Your task to perform on an android device: toggle notifications settings in the gmail app Image 0: 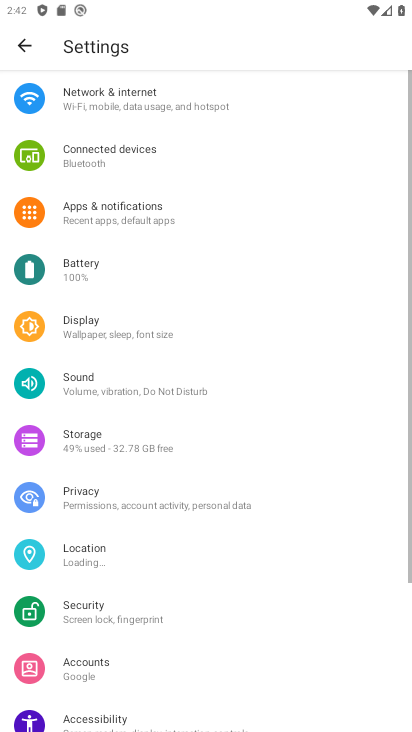
Step 0: press home button
Your task to perform on an android device: toggle notifications settings in the gmail app Image 1: 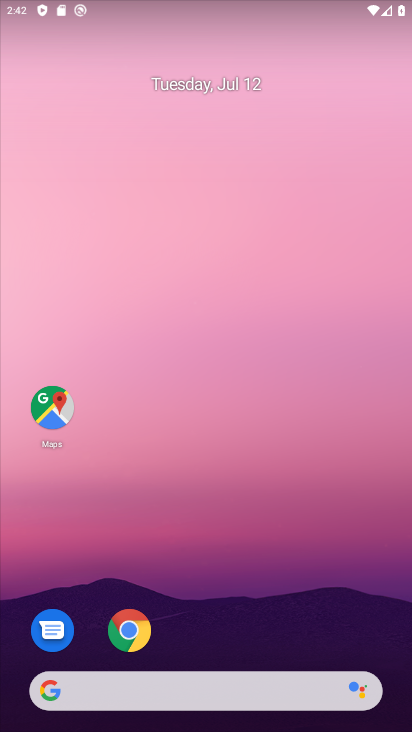
Step 1: drag from (257, 618) to (243, 158)
Your task to perform on an android device: toggle notifications settings in the gmail app Image 2: 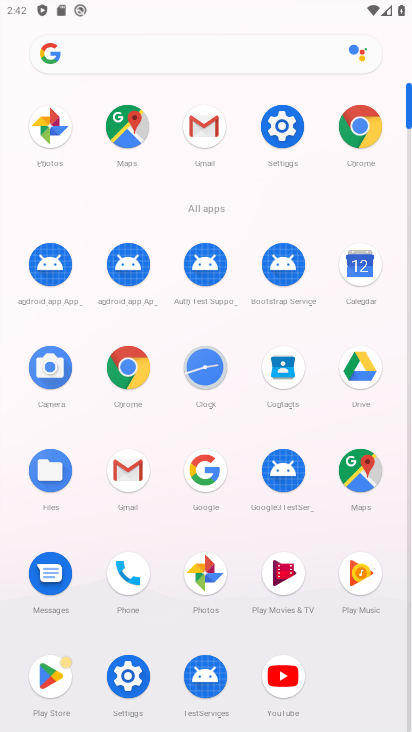
Step 2: click (134, 472)
Your task to perform on an android device: toggle notifications settings in the gmail app Image 3: 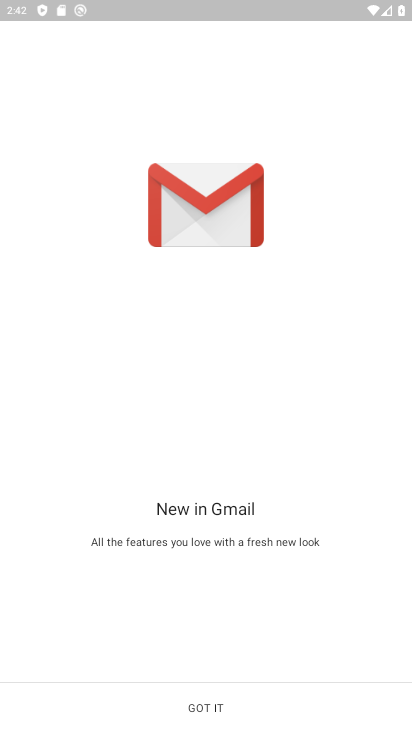
Step 3: click (208, 700)
Your task to perform on an android device: toggle notifications settings in the gmail app Image 4: 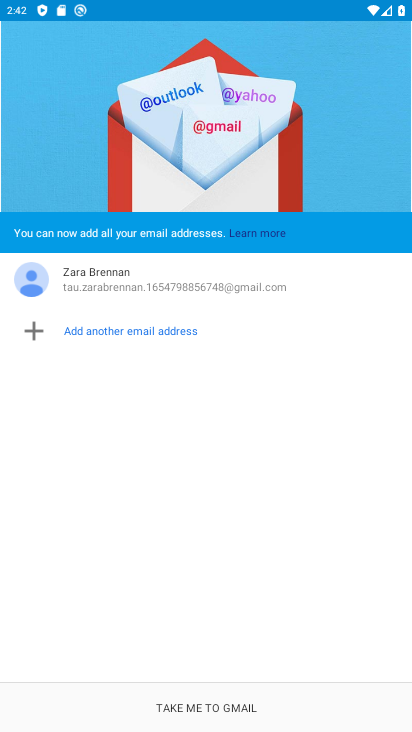
Step 4: click (206, 704)
Your task to perform on an android device: toggle notifications settings in the gmail app Image 5: 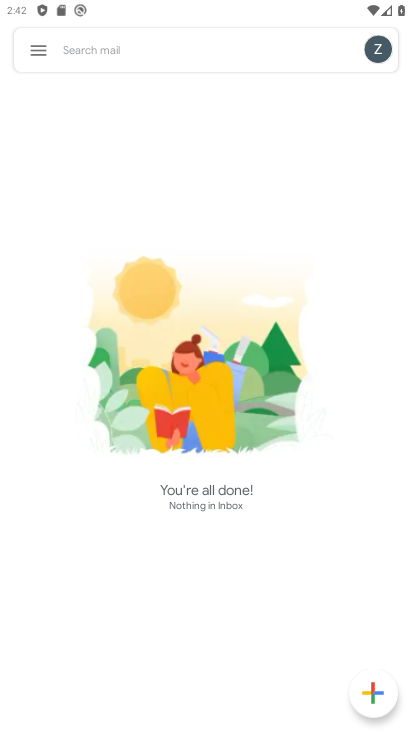
Step 5: click (45, 54)
Your task to perform on an android device: toggle notifications settings in the gmail app Image 6: 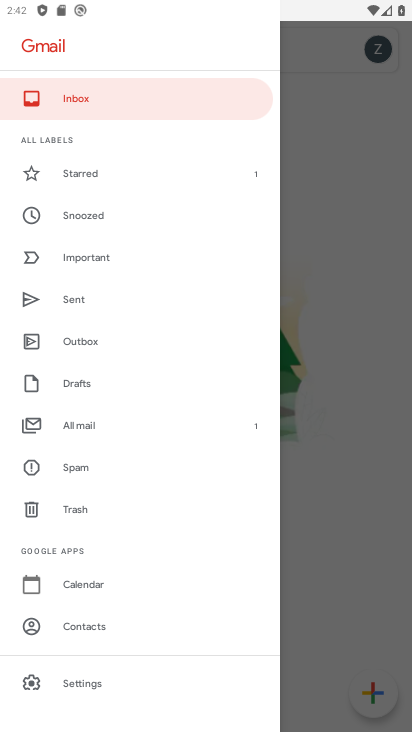
Step 6: click (92, 672)
Your task to perform on an android device: toggle notifications settings in the gmail app Image 7: 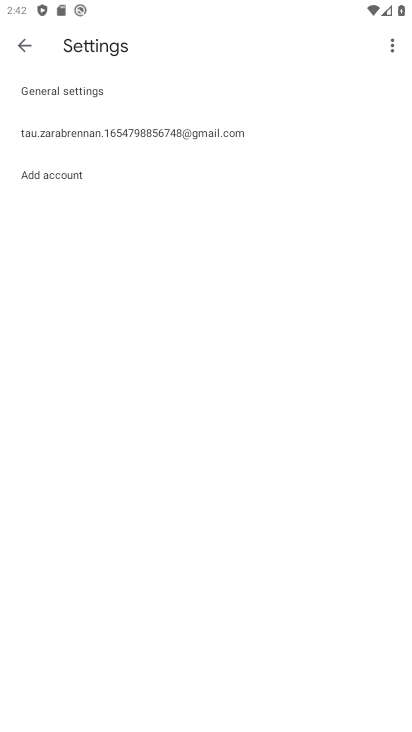
Step 7: click (144, 136)
Your task to perform on an android device: toggle notifications settings in the gmail app Image 8: 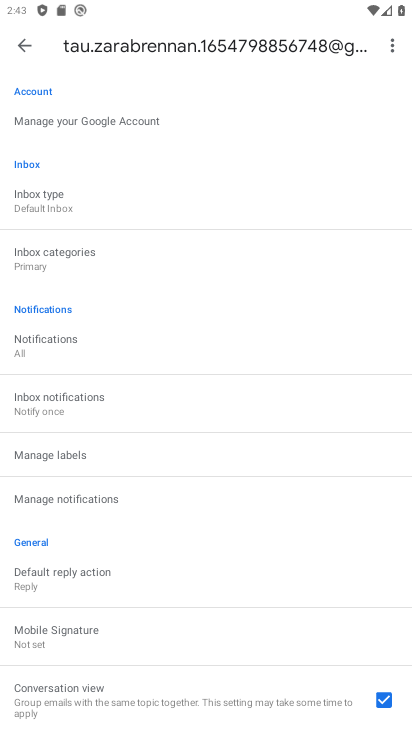
Step 8: click (28, 60)
Your task to perform on an android device: toggle notifications settings in the gmail app Image 9: 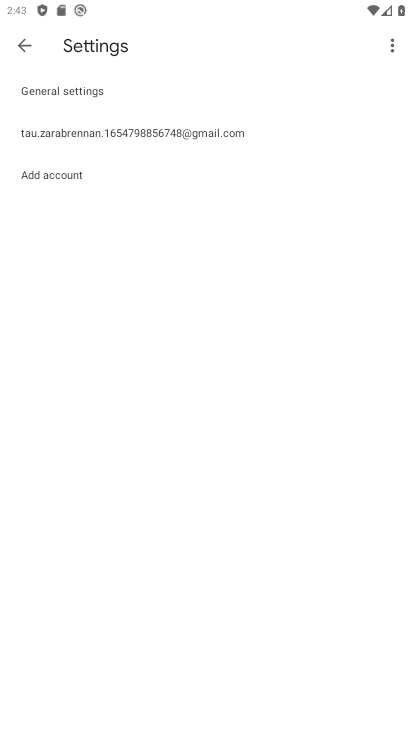
Step 9: click (108, 90)
Your task to perform on an android device: toggle notifications settings in the gmail app Image 10: 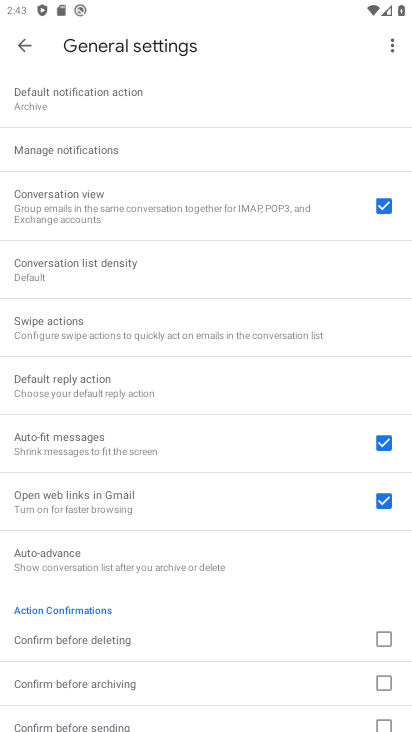
Step 10: click (97, 146)
Your task to perform on an android device: toggle notifications settings in the gmail app Image 11: 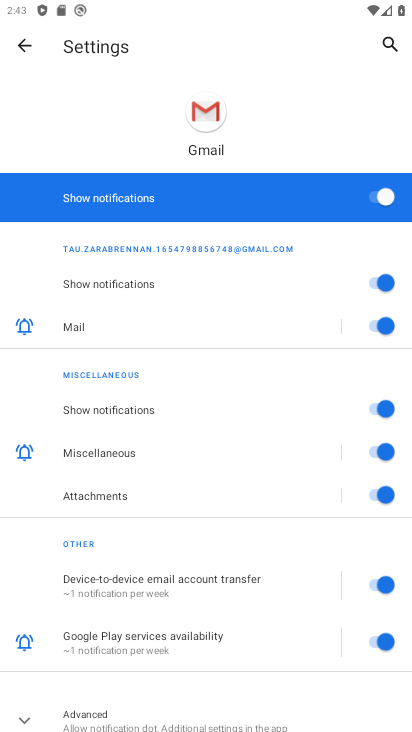
Step 11: click (364, 197)
Your task to perform on an android device: toggle notifications settings in the gmail app Image 12: 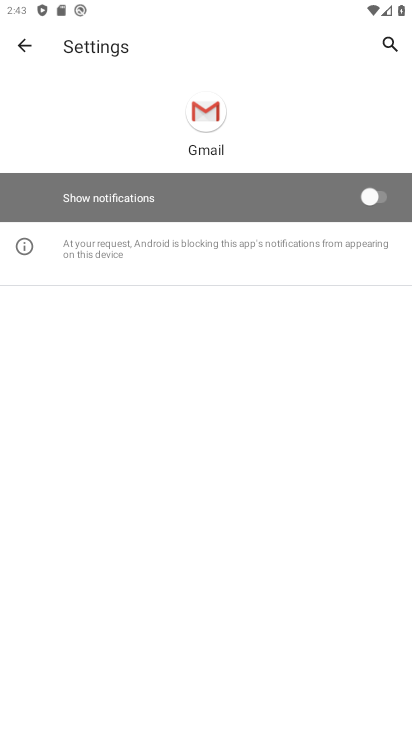
Step 12: task complete